Your task to perform on an android device: Show me popular videos on Youtube Image 0: 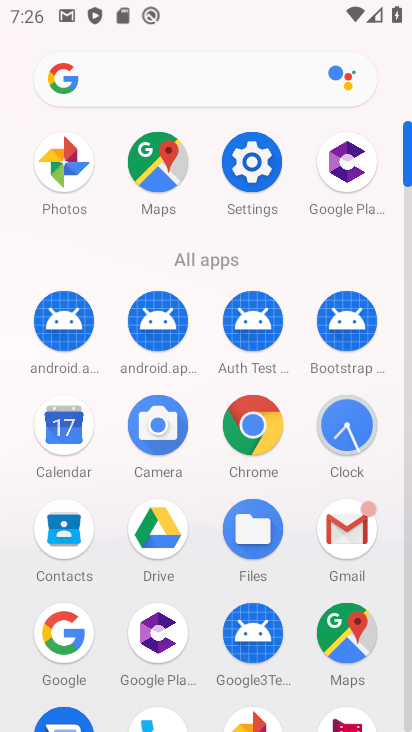
Step 0: press home button
Your task to perform on an android device: Show me popular videos on Youtube Image 1: 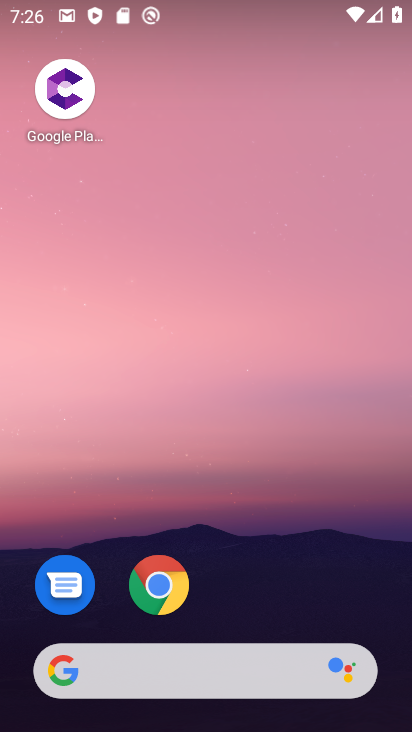
Step 1: drag from (224, 676) to (277, 108)
Your task to perform on an android device: Show me popular videos on Youtube Image 2: 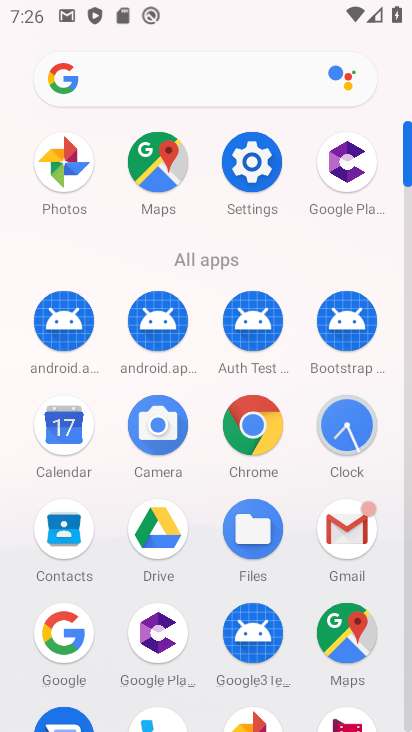
Step 2: drag from (297, 629) to (336, 185)
Your task to perform on an android device: Show me popular videos on Youtube Image 3: 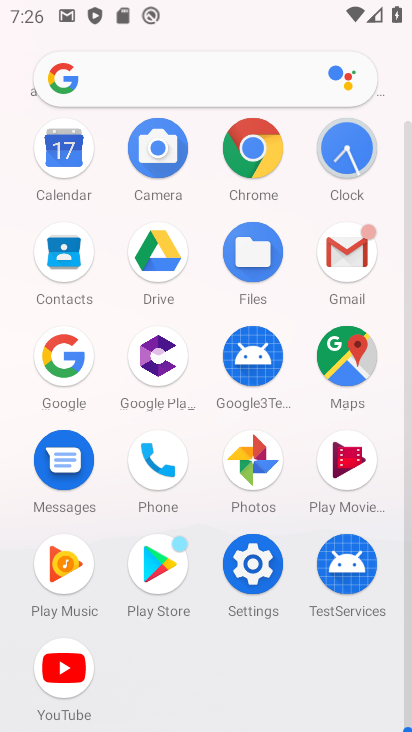
Step 3: click (58, 661)
Your task to perform on an android device: Show me popular videos on Youtube Image 4: 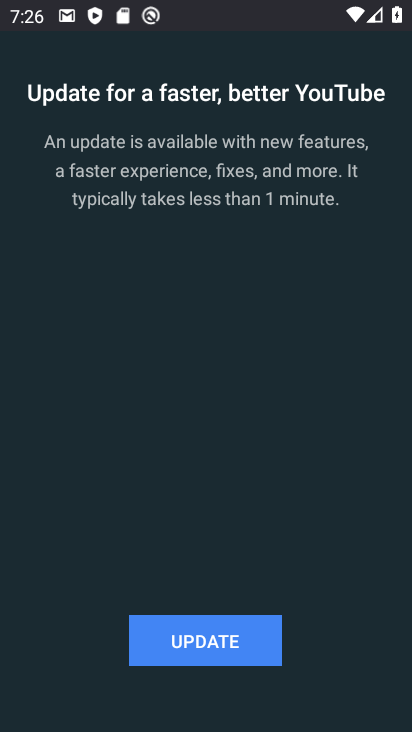
Step 4: click (177, 637)
Your task to perform on an android device: Show me popular videos on Youtube Image 5: 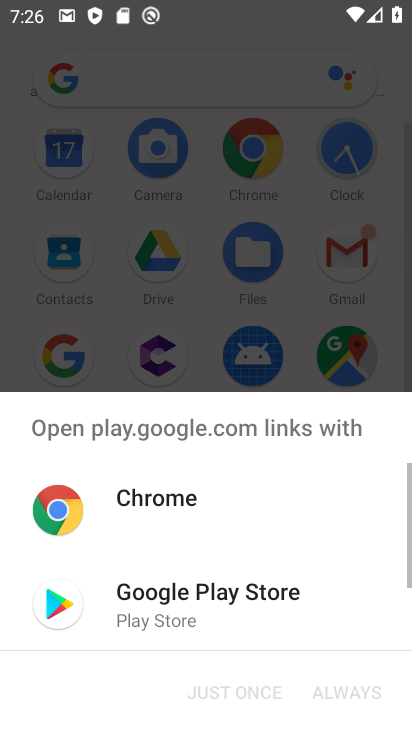
Step 5: click (160, 600)
Your task to perform on an android device: Show me popular videos on Youtube Image 6: 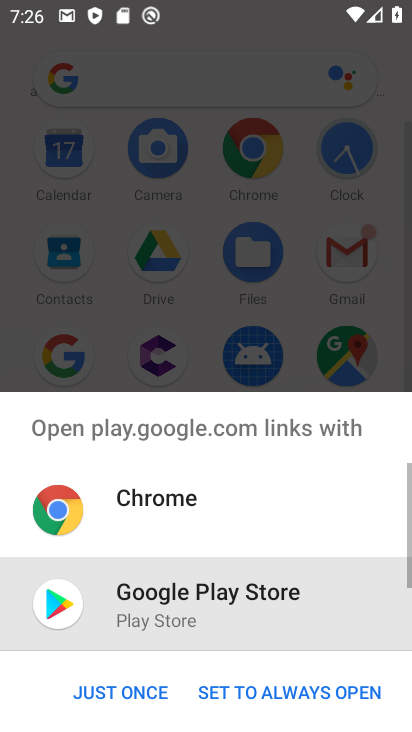
Step 6: click (126, 697)
Your task to perform on an android device: Show me popular videos on Youtube Image 7: 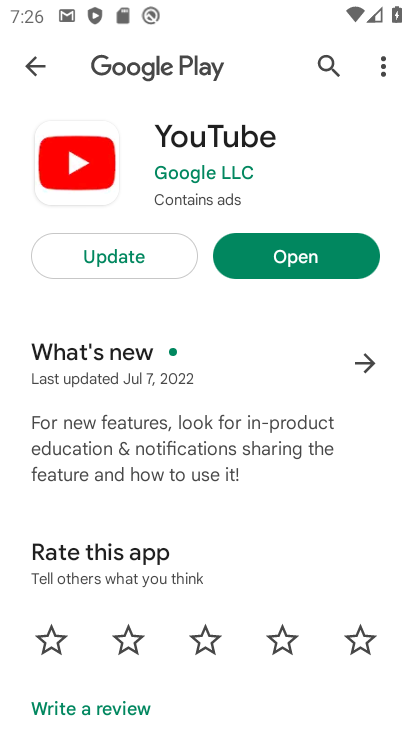
Step 7: click (116, 259)
Your task to perform on an android device: Show me popular videos on Youtube Image 8: 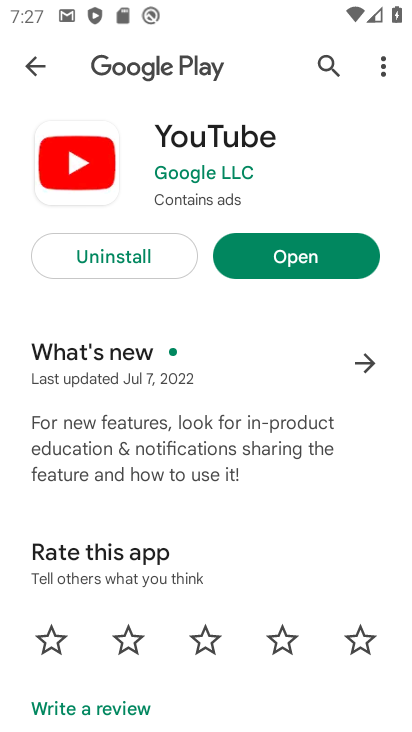
Step 8: click (299, 261)
Your task to perform on an android device: Show me popular videos on Youtube Image 9: 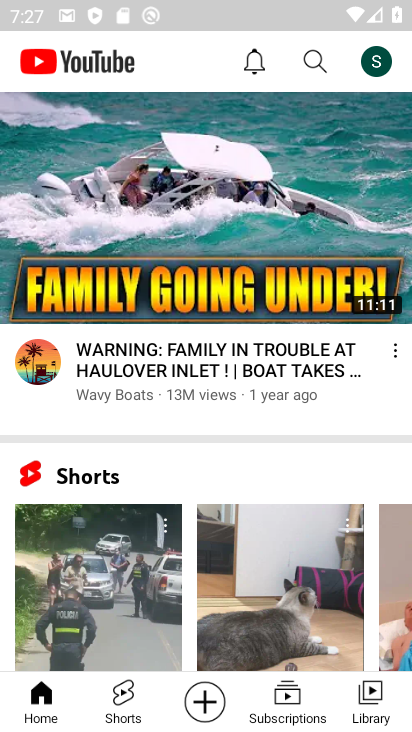
Step 9: task complete